Your task to perform on an android device: Open ESPN.com Image 0: 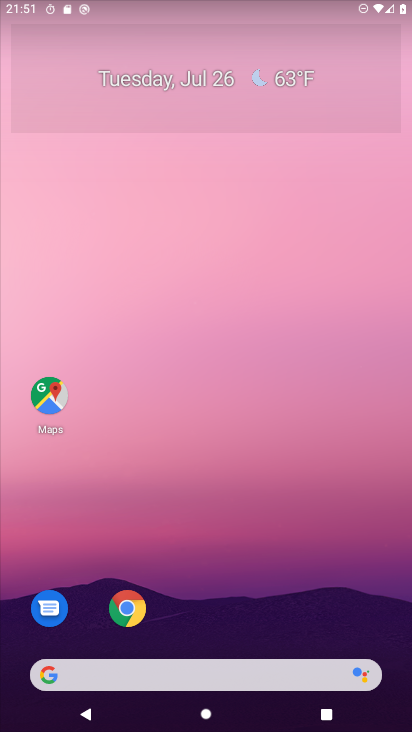
Step 0: click (77, 683)
Your task to perform on an android device: Open ESPN.com Image 1: 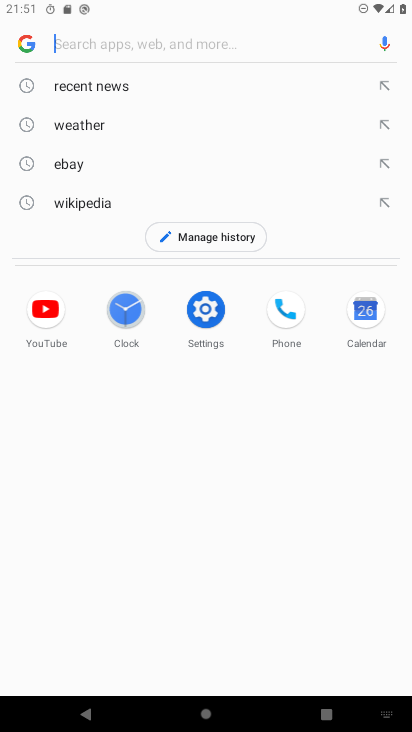
Step 1: type "ESPN.com"
Your task to perform on an android device: Open ESPN.com Image 2: 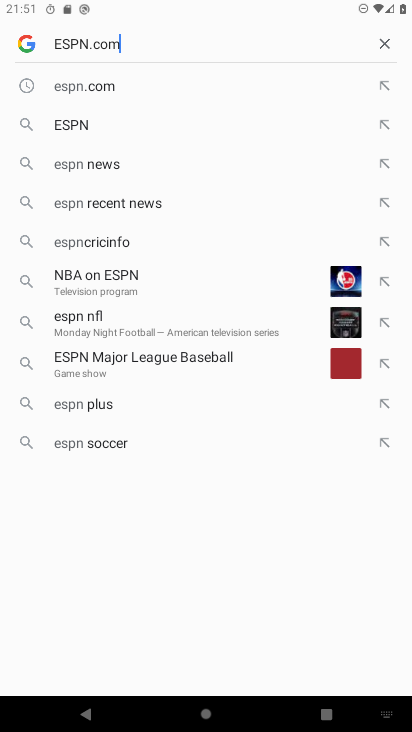
Step 2: type ""
Your task to perform on an android device: Open ESPN.com Image 3: 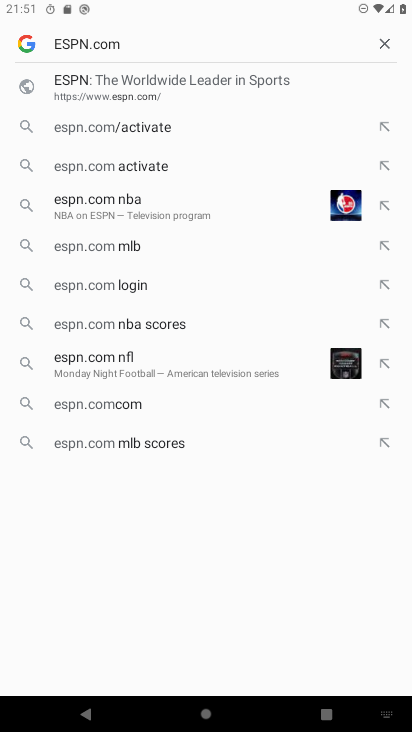
Step 3: click (79, 76)
Your task to perform on an android device: Open ESPN.com Image 4: 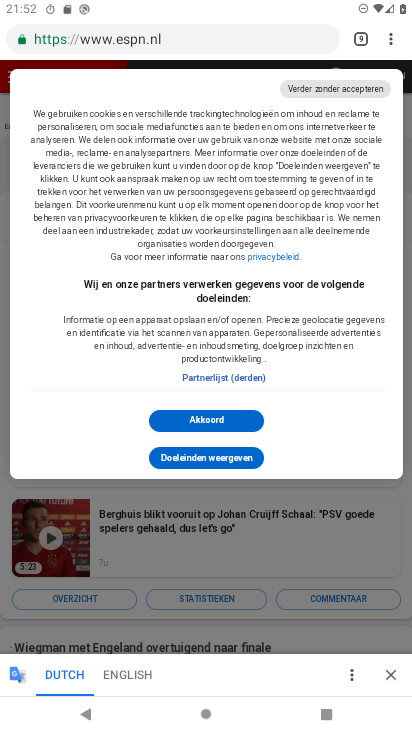
Step 4: task complete